Your task to perform on an android device: turn on showing notifications on the lock screen Image 0: 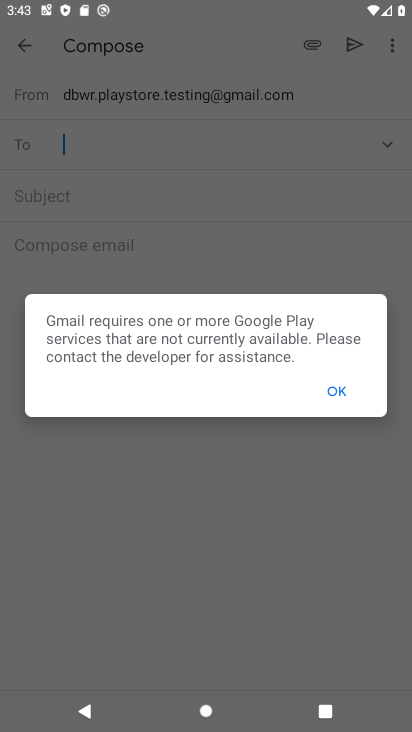
Step 0: press home button
Your task to perform on an android device: turn on showing notifications on the lock screen Image 1: 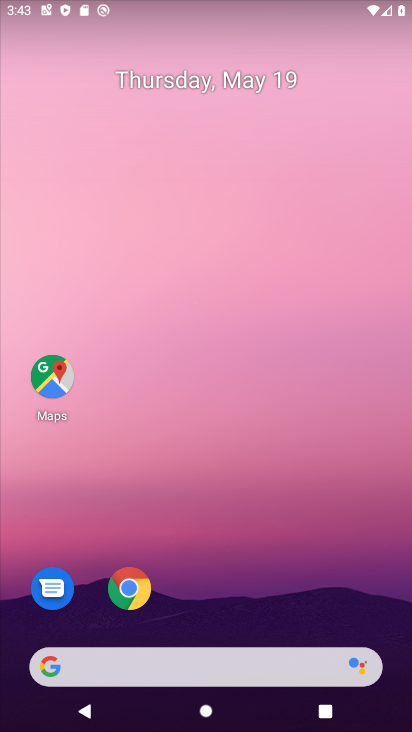
Step 1: drag from (286, 13) to (202, 64)
Your task to perform on an android device: turn on showing notifications on the lock screen Image 2: 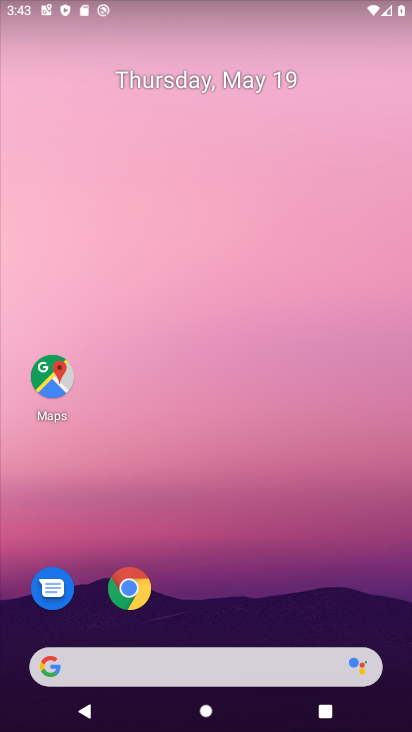
Step 2: drag from (191, 622) to (189, 3)
Your task to perform on an android device: turn on showing notifications on the lock screen Image 3: 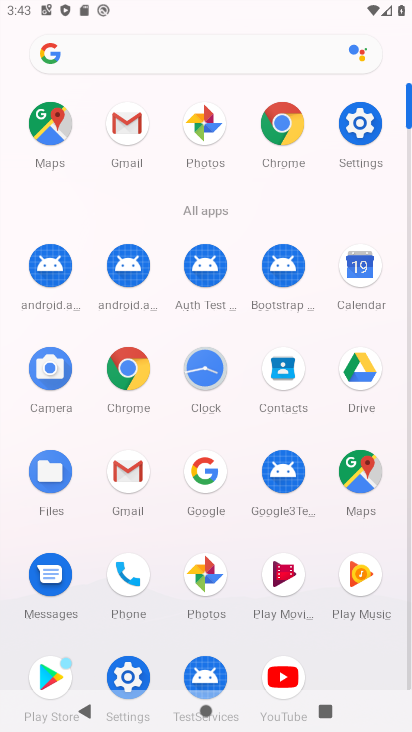
Step 3: click (368, 116)
Your task to perform on an android device: turn on showing notifications on the lock screen Image 4: 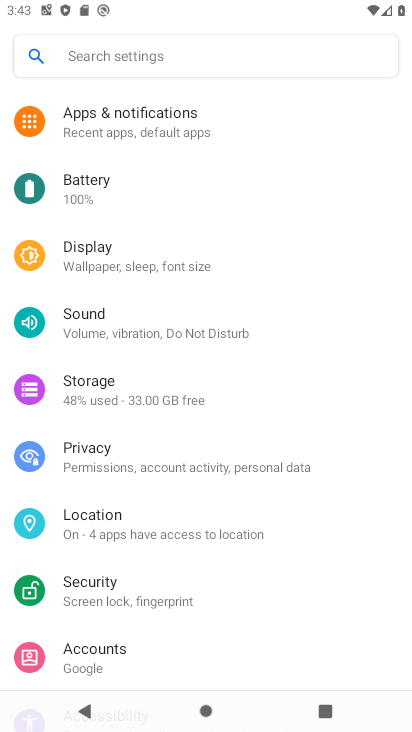
Step 4: click (141, 107)
Your task to perform on an android device: turn on showing notifications on the lock screen Image 5: 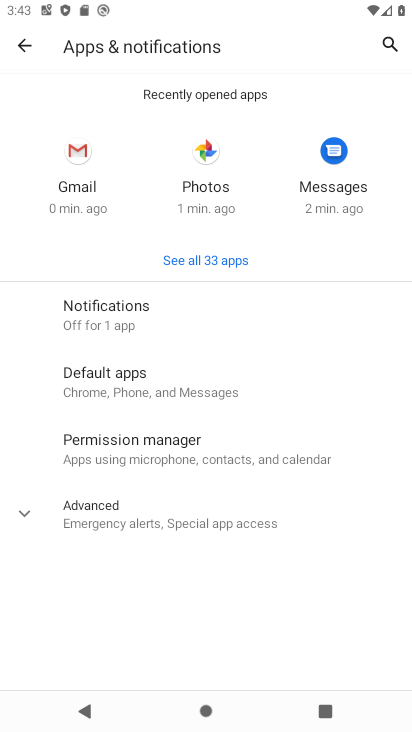
Step 5: click (103, 329)
Your task to perform on an android device: turn on showing notifications on the lock screen Image 6: 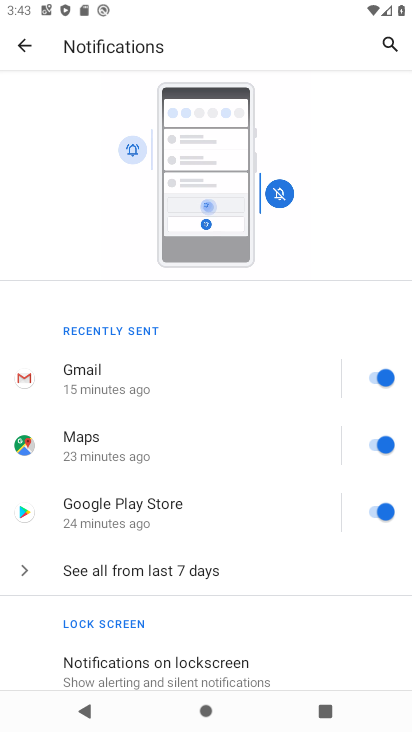
Step 6: drag from (183, 654) to (326, 188)
Your task to perform on an android device: turn on showing notifications on the lock screen Image 7: 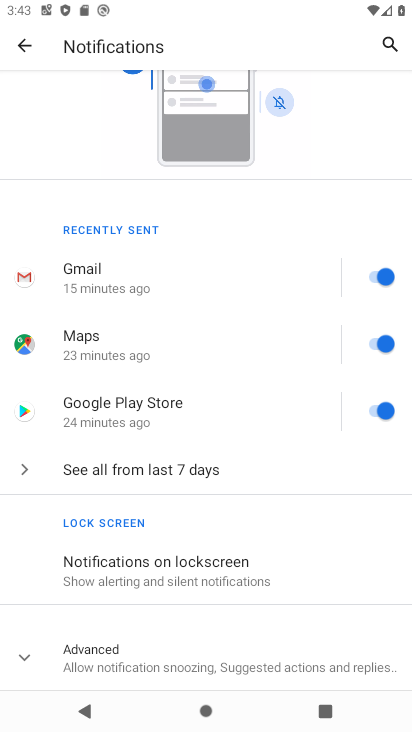
Step 7: click (184, 571)
Your task to perform on an android device: turn on showing notifications on the lock screen Image 8: 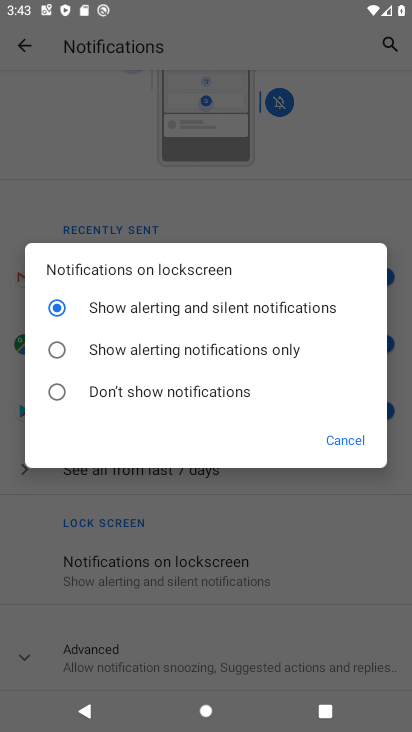
Step 8: task complete